Your task to perform on an android device: toggle data saver in the chrome app Image 0: 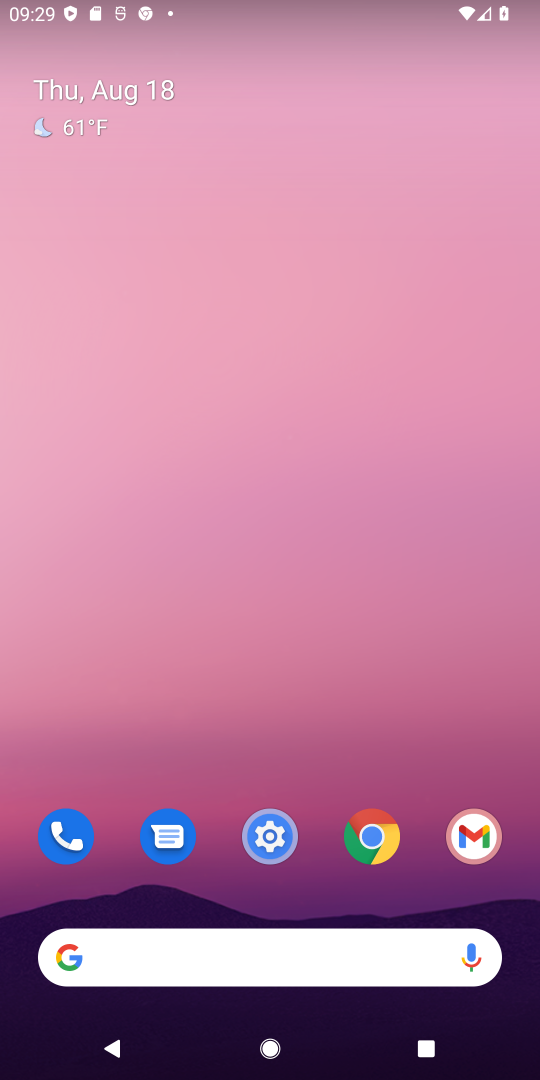
Step 0: drag from (329, 887) to (442, 68)
Your task to perform on an android device: toggle data saver in the chrome app Image 1: 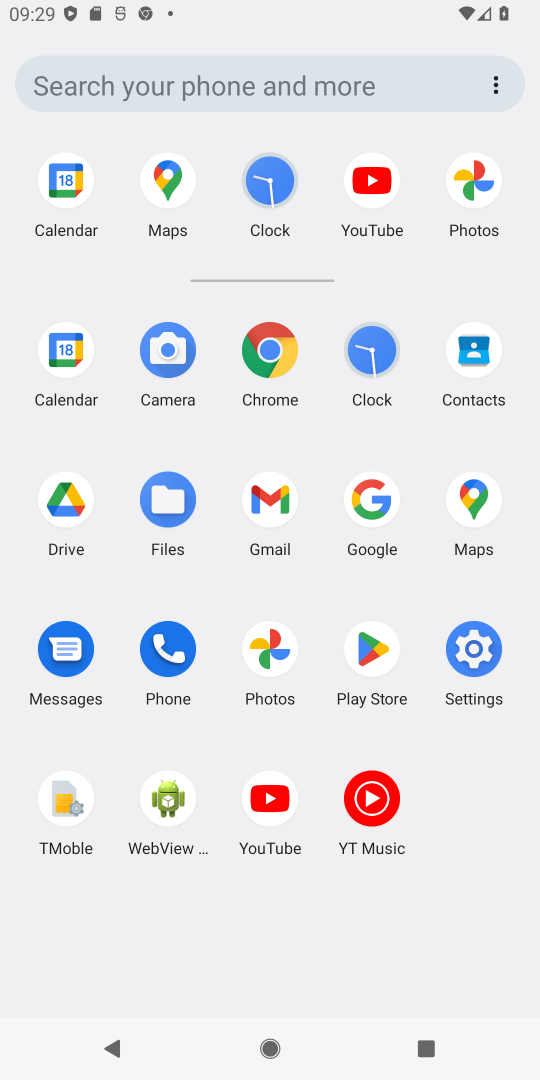
Step 1: click (277, 346)
Your task to perform on an android device: toggle data saver in the chrome app Image 2: 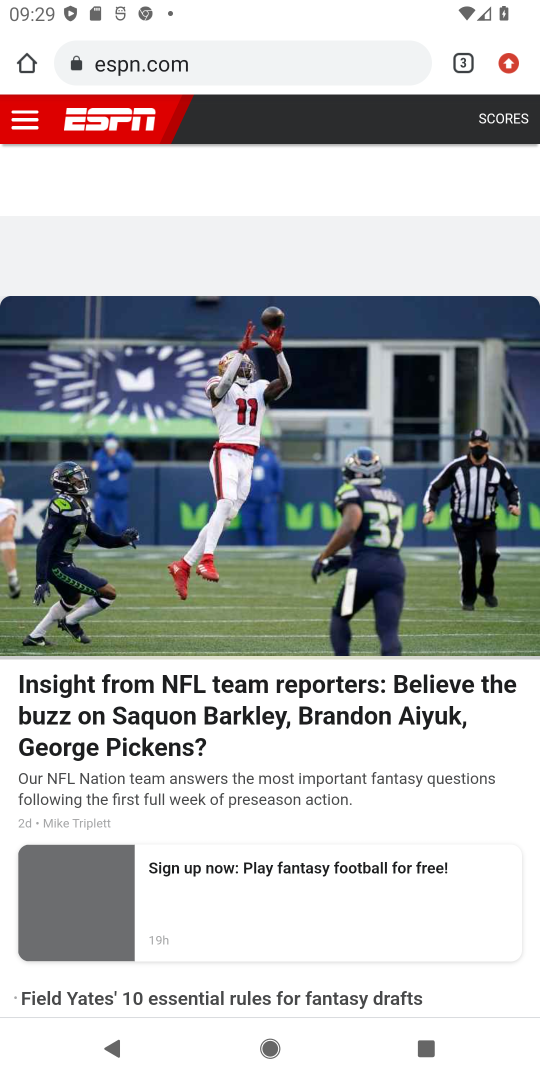
Step 2: drag from (531, 50) to (364, 815)
Your task to perform on an android device: toggle data saver in the chrome app Image 3: 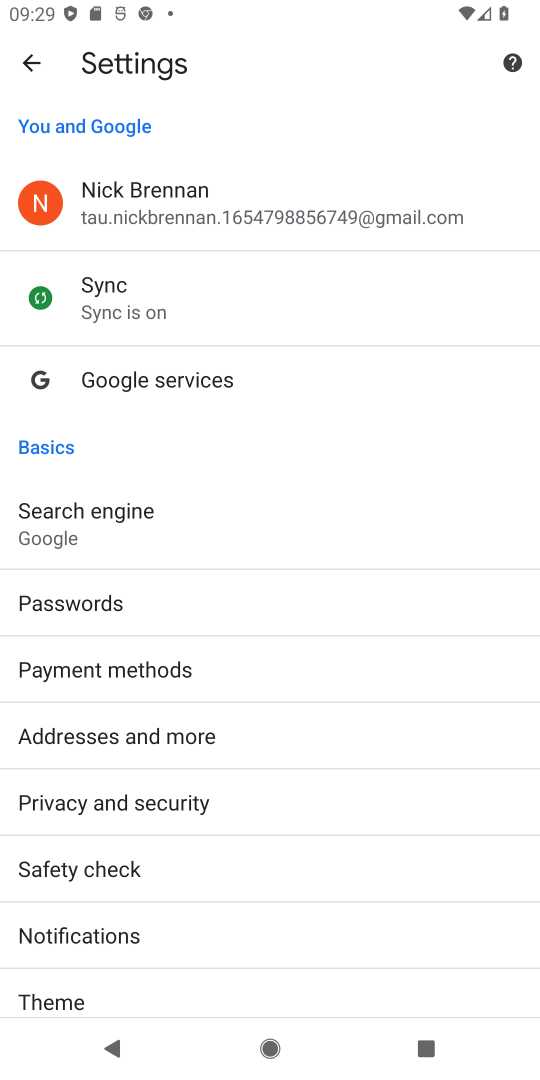
Step 3: drag from (233, 935) to (281, 146)
Your task to perform on an android device: toggle data saver in the chrome app Image 4: 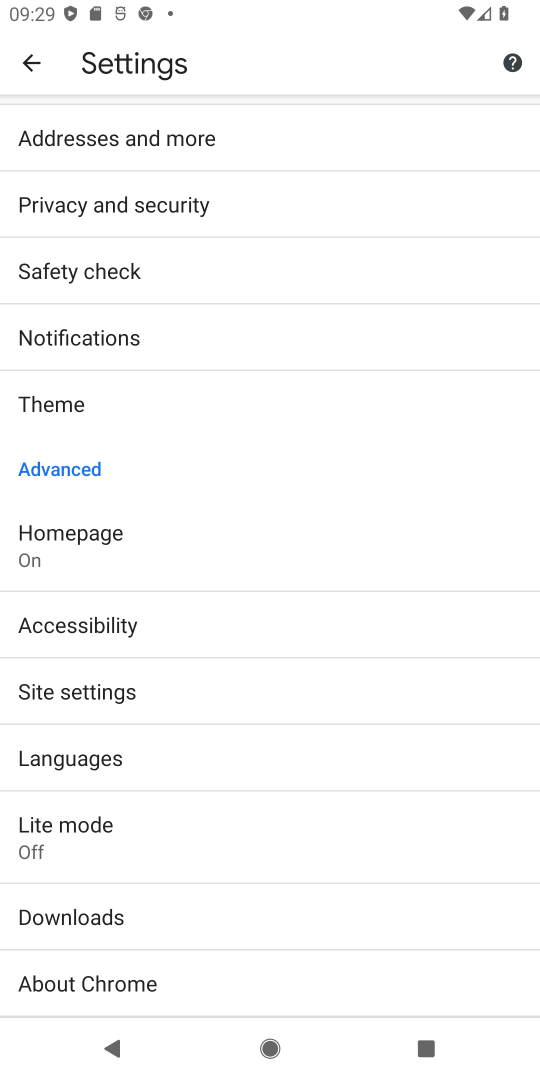
Step 4: click (79, 843)
Your task to perform on an android device: toggle data saver in the chrome app Image 5: 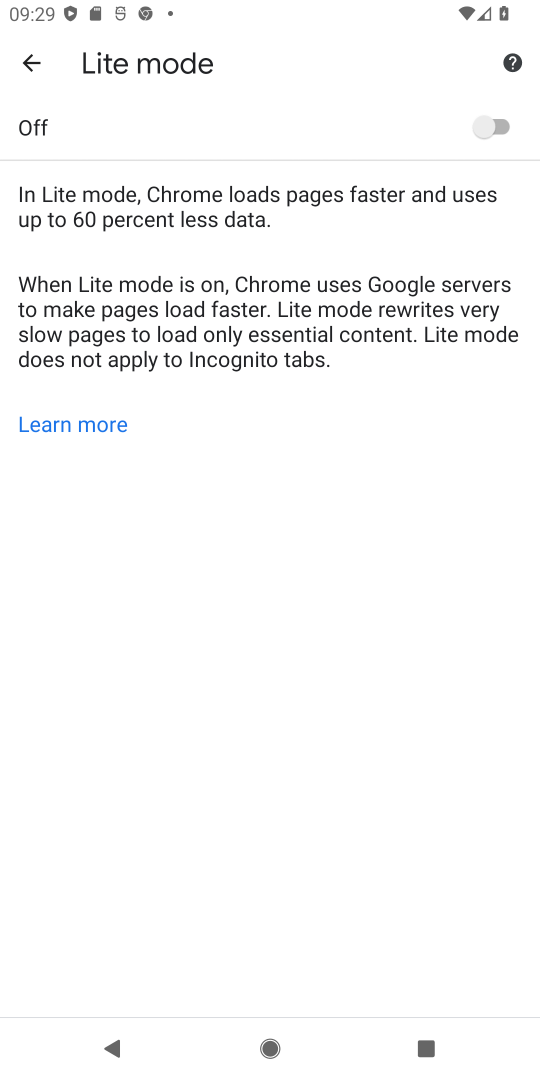
Step 5: click (479, 134)
Your task to perform on an android device: toggle data saver in the chrome app Image 6: 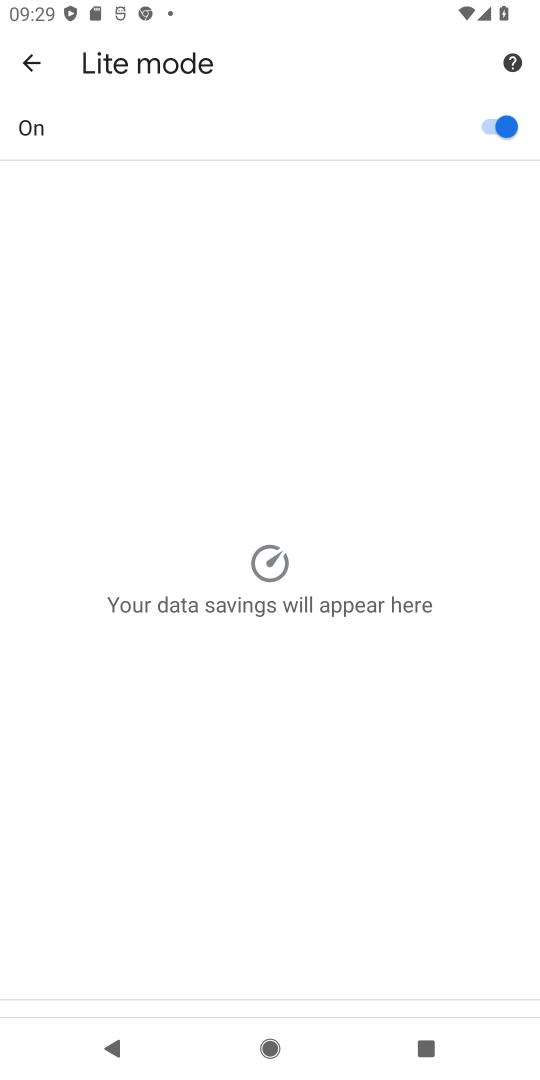
Step 6: task complete